Your task to perform on an android device: visit the assistant section in the google photos Image 0: 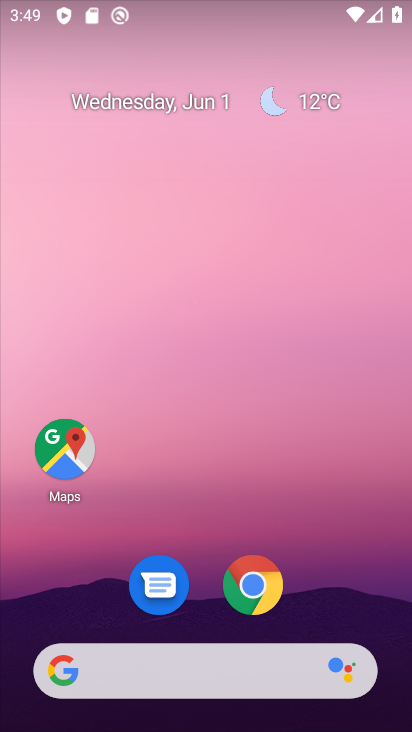
Step 0: drag from (336, 536) to (310, 12)
Your task to perform on an android device: visit the assistant section in the google photos Image 1: 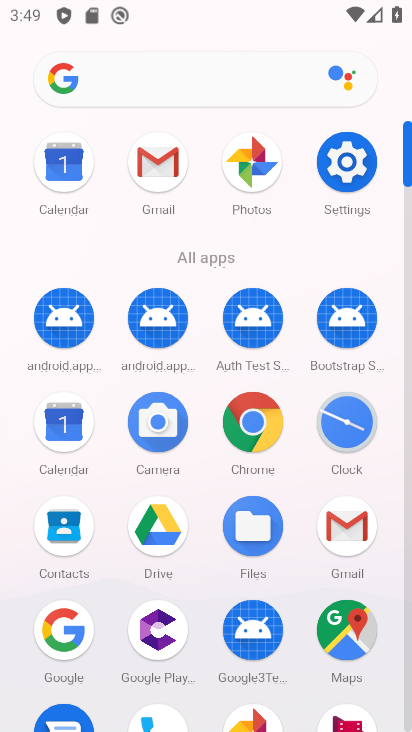
Step 1: click (256, 166)
Your task to perform on an android device: visit the assistant section in the google photos Image 2: 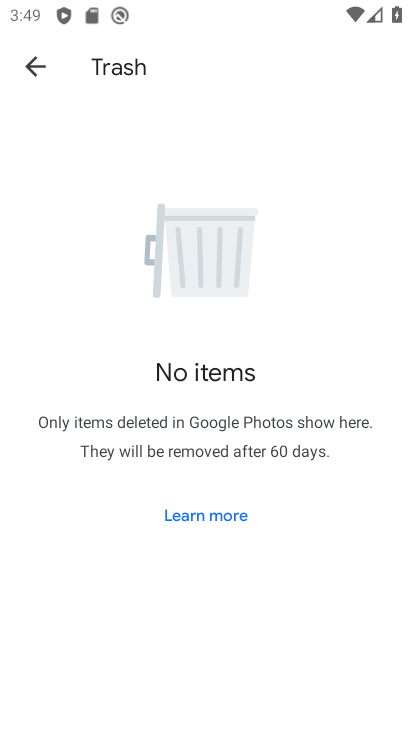
Step 2: click (37, 63)
Your task to perform on an android device: visit the assistant section in the google photos Image 3: 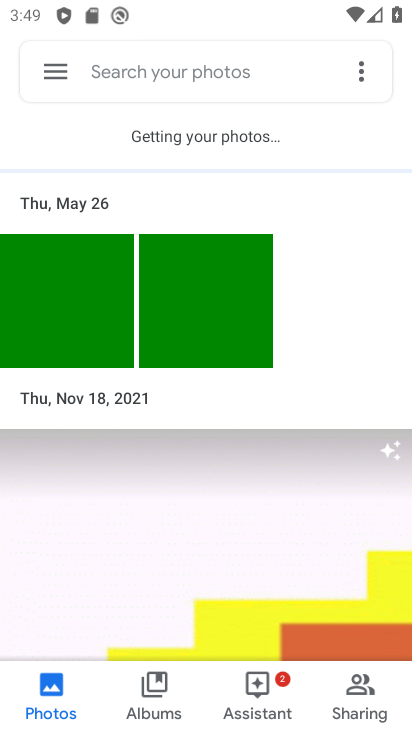
Step 3: click (247, 670)
Your task to perform on an android device: visit the assistant section in the google photos Image 4: 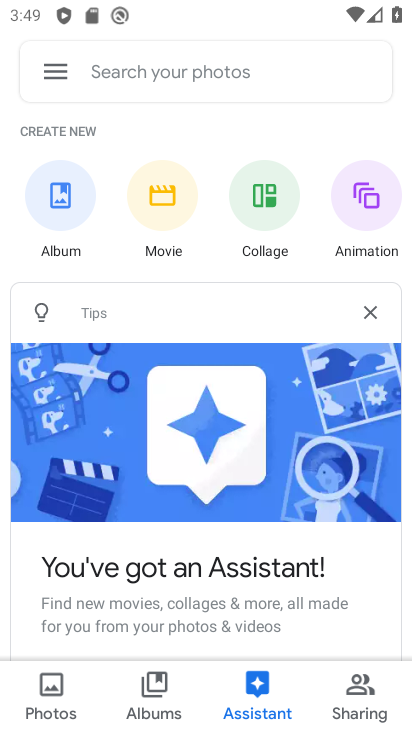
Step 4: task complete